Your task to perform on an android device: open device folders in google photos Image 0: 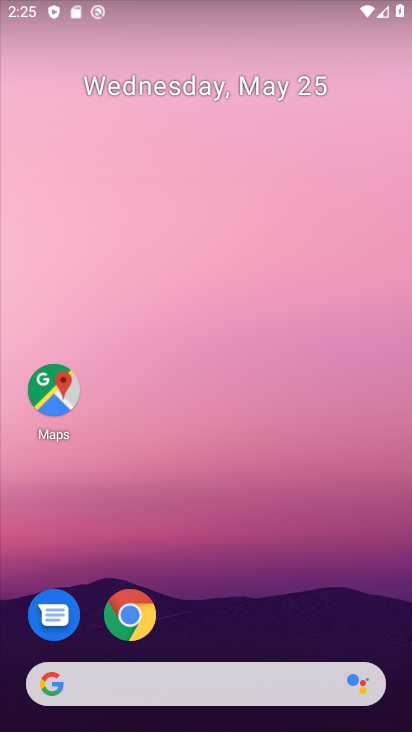
Step 0: drag from (328, 656) to (276, 45)
Your task to perform on an android device: open device folders in google photos Image 1: 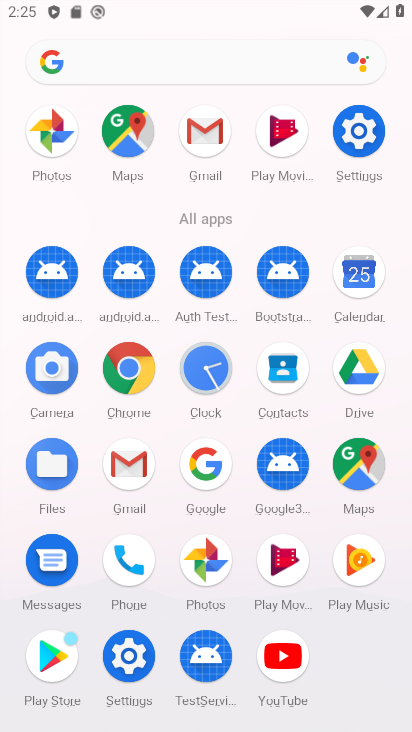
Step 1: click (211, 566)
Your task to perform on an android device: open device folders in google photos Image 2: 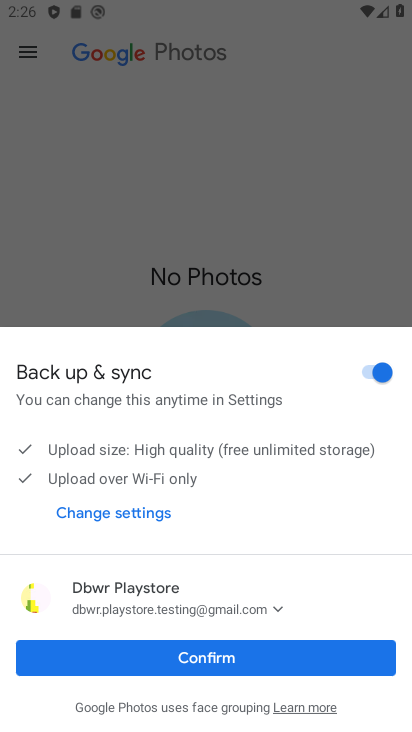
Step 2: click (218, 653)
Your task to perform on an android device: open device folders in google photos Image 3: 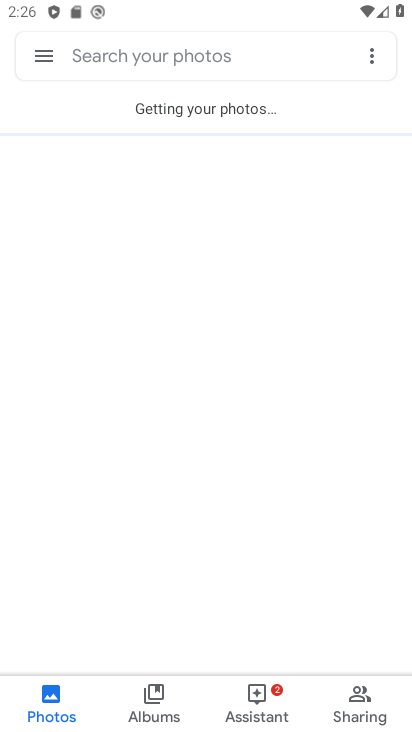
Step 3: click (42, 65)
Your task to perform on an android device: open device folders in google photos Image 4: 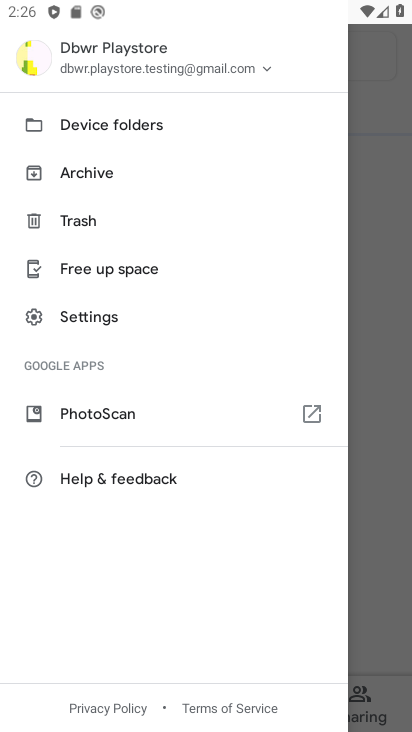
Step 4: click (133, 122)
Your task to perform on an android device: open device folders in google photos Image 5: 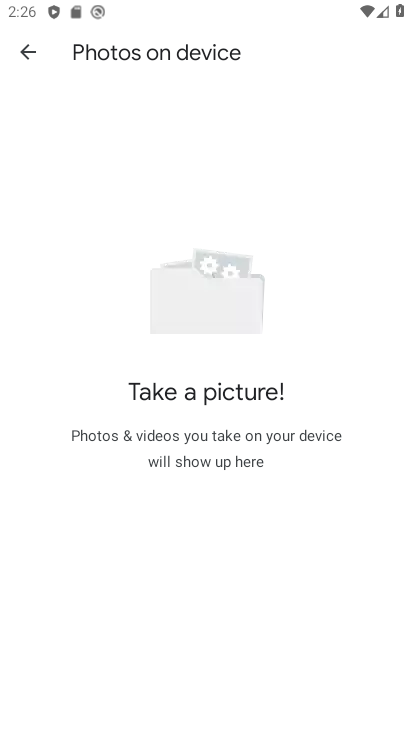
Step 5: task complete